Your task to perform on an android device: Open Google Chrome and open the bookmarks view Image 0: 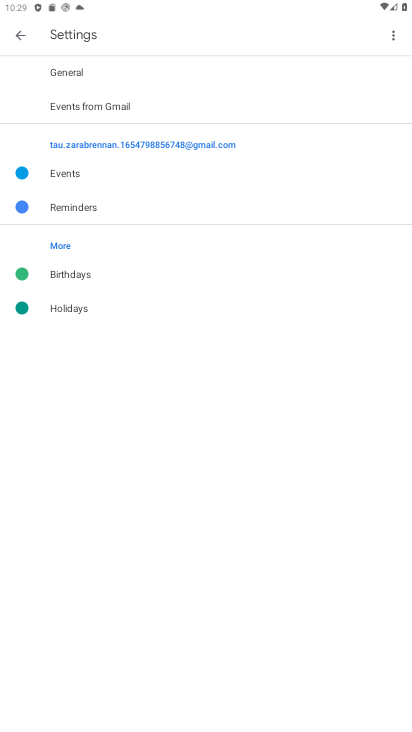
Step 0: task complete